Your task to perform on an android device: delete the emails in spam in the gmail app Image 0: 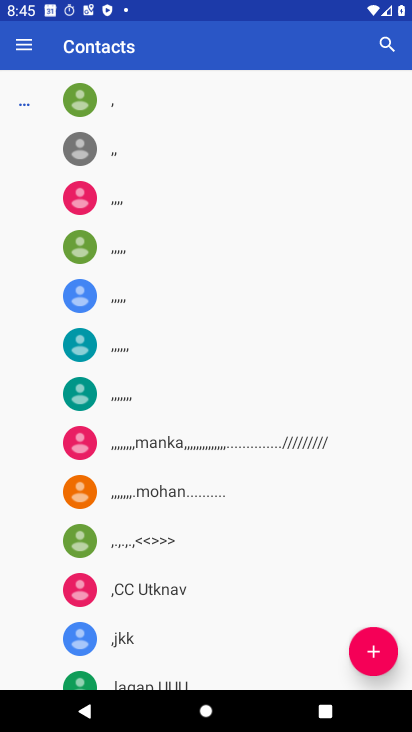
Step 0: press home button
Your task to perform on an android device: delete the emails in spam in the gmail app Image 1: 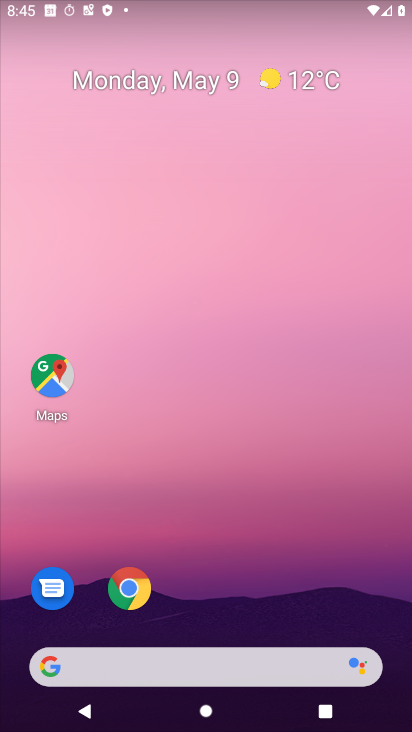
Step 1: drag from (191, 666) to (247, 150)
Your task to perform on an android device: delete the emails in spam in the gmail app Image 2: 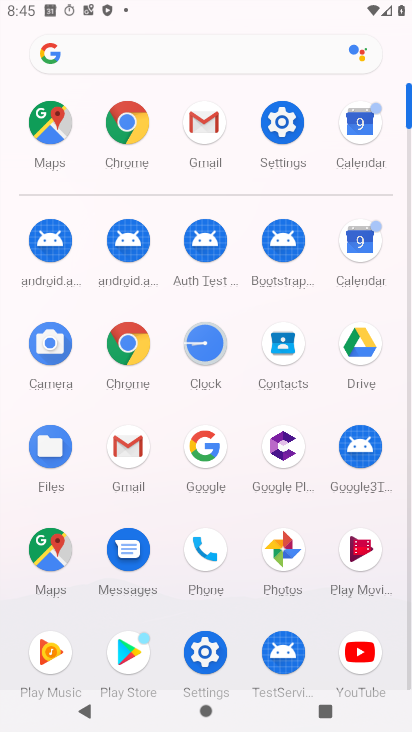
Step 2: click (207, 135)
Your task to perform on an android device: delete the emails in spam in the gmail app Image 3: 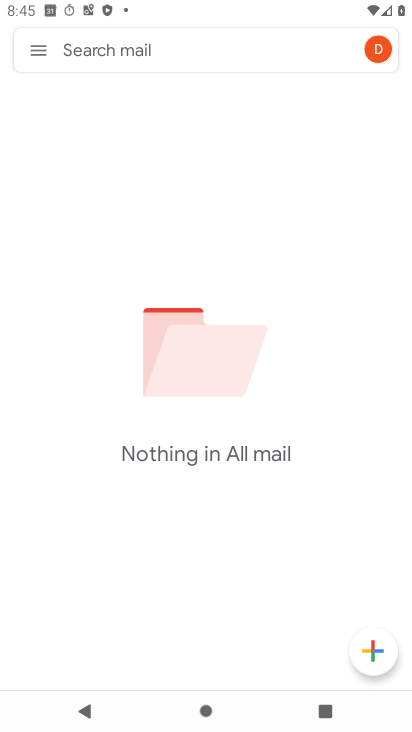
Step 3: click (36, 52)
Your task to perform on an android device: delete the emails in spam in the gmail app Image 4: 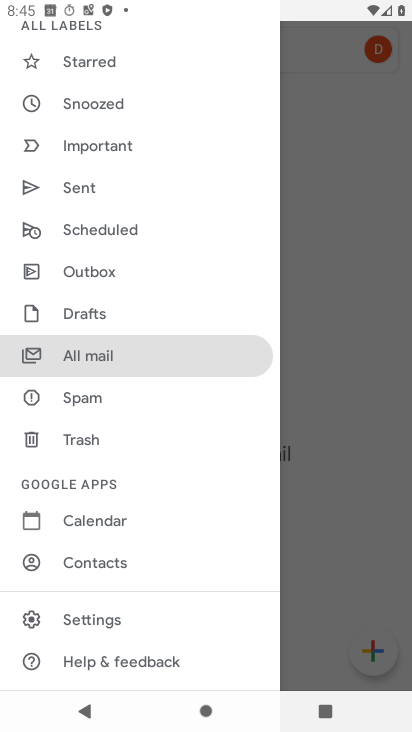
Step 4: click (85, 398)
Your task to perform on an android device: delete the emails in spam in the gmail app Image 5: 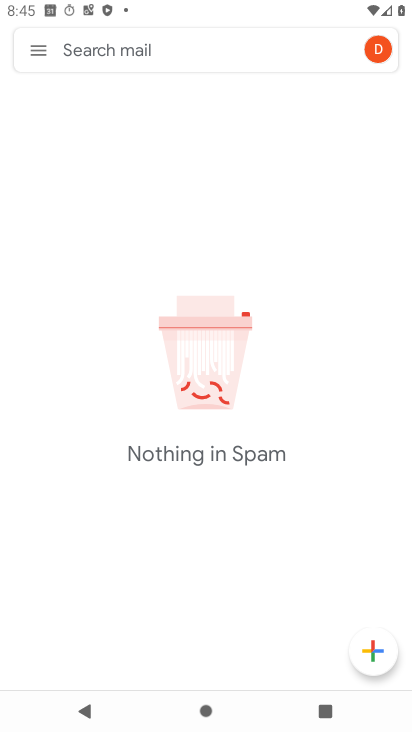
Step 5: task complete